Your task to perform on an android device: Go to accessibility settings Image 0: 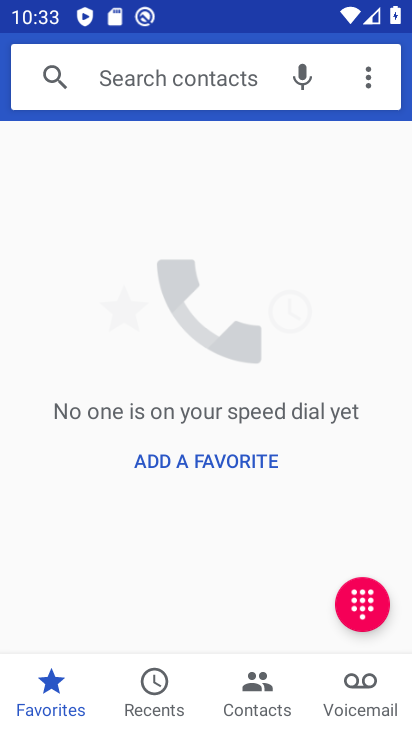
Step 0: press home button
Your task to perform on an android device: Go to accessibility settings Image 1: 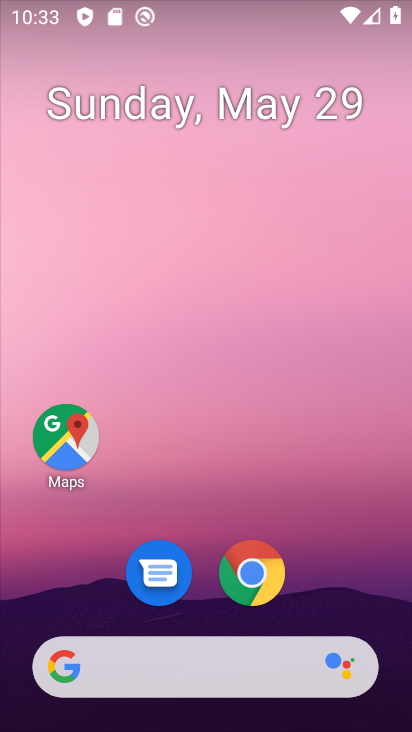
Step 1: drag from (359, 562) to (301, 118)
Your task to perform on an android device: Go to accessibility settings Image 2: 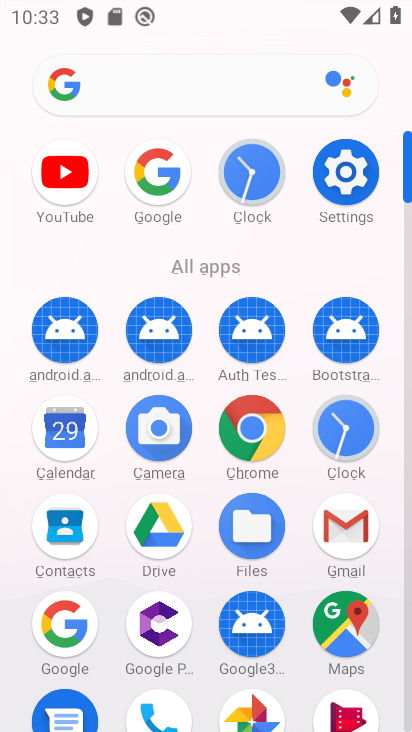
Step 2: click (359, 185)
Your task to perform on an android device: Go to accessibility settings Image 3: 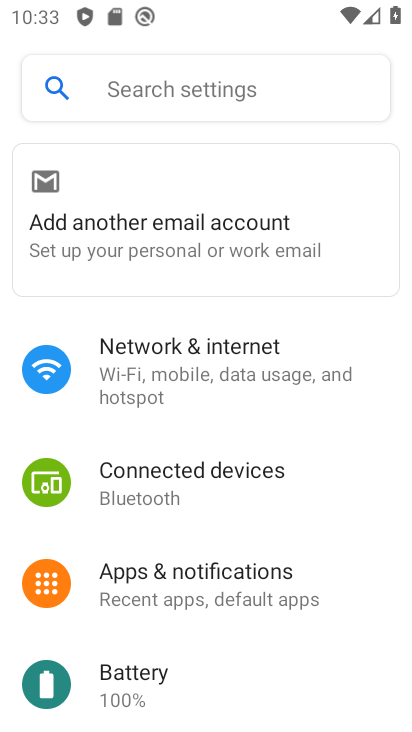
Step 3: drag from (315, 636) to (241, 6)
Your task to perform on an android device: Go to accessibility settings Image 4: 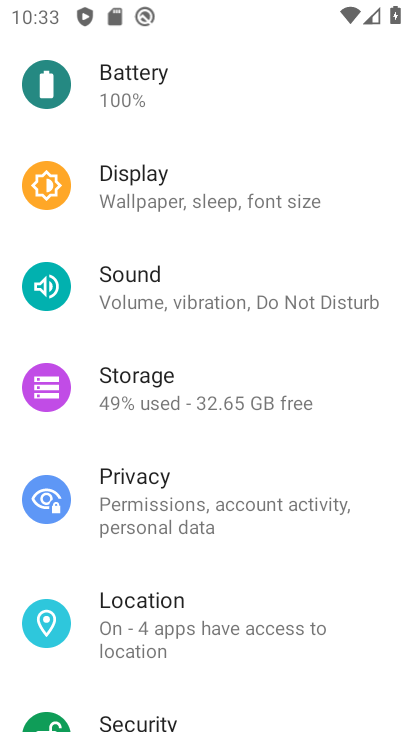
Step 4: drag from (321, 676) to (302, 164)
Your task to perform on an android device: Go to accessibility settings Image 5: 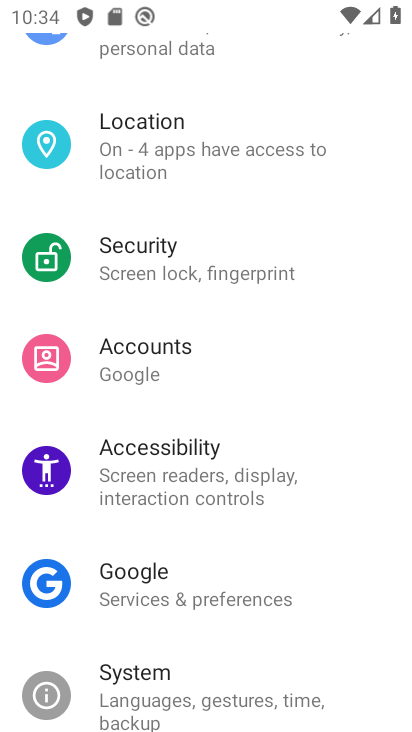
Step 5: click (158, 454)
Your task to perform on an android device: Go to accessibility settings Image 6: 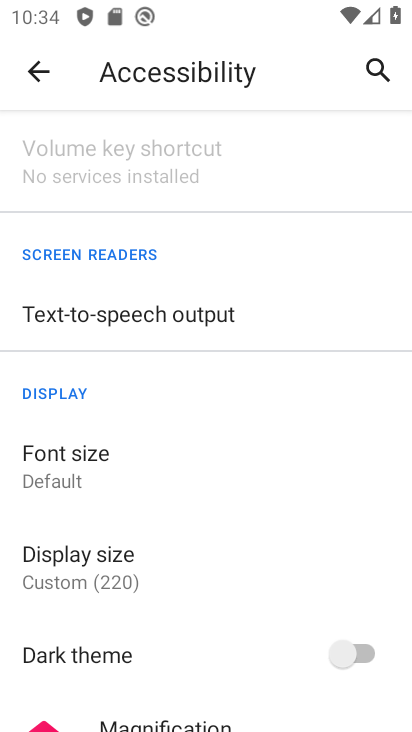
Step 6: task complete